Your task to perform on an android device: Open Google Maps Image 0: 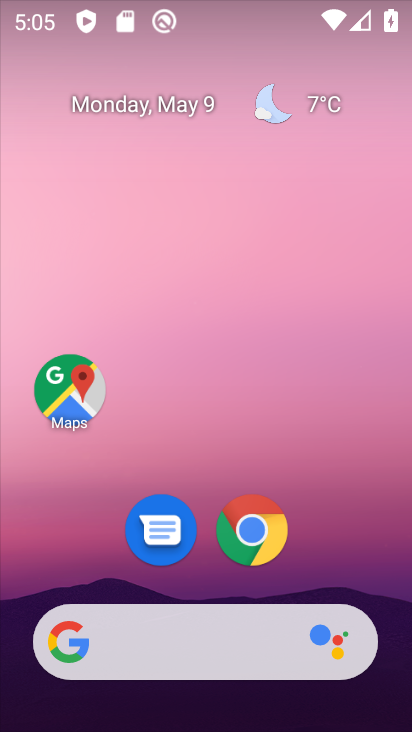
Step 0: click (63, 374)
Your task to perform on an android device: Open Google Maps Image 1: 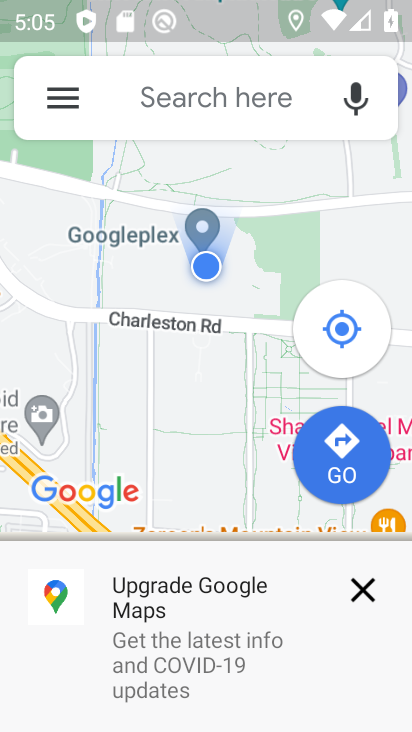
Step 1: task complete